Your task to perform on an android device: turn on javascript in the chrome app Image 0: 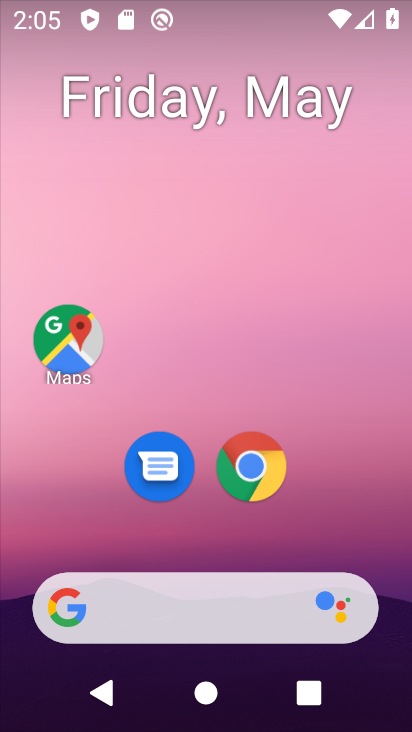
Step 0: click (267, 502)
Your task to perform on an android device: turn on javascript in the chrome app Image 1: 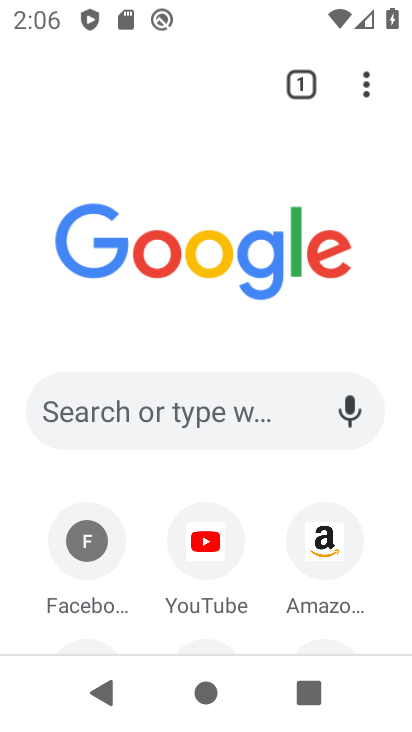
Step 1: click (371, 102)
Your task to perform on an android device: turn on javascript in the chrome app Image 2: 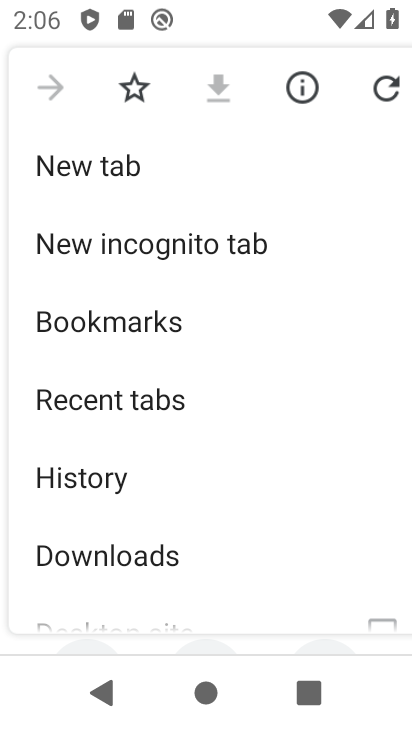
Step 2: drag from (227, 521) to (207, 121)
Your task to perform on an android device: turn on javascript in the chrome app Image 3: 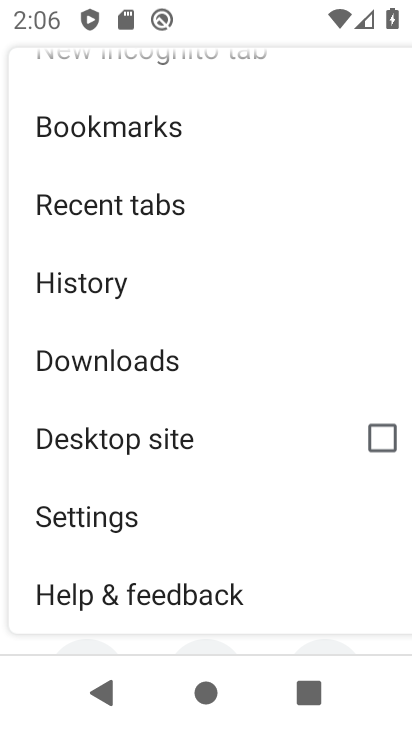
Step 3: click (155, 510)
Your task to perform on an android device: turn on javascript in the chrome app Image 4: 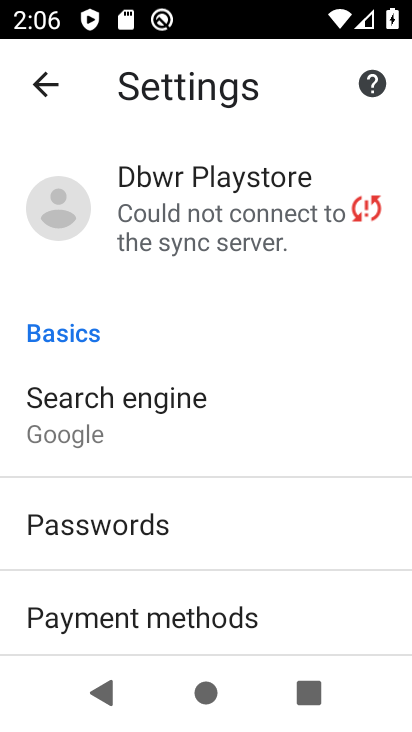
Step 4: drag from (227, 610) to (226, 183)
Your task to perform on an android device: turn on javascript in the chrome app Image 5: 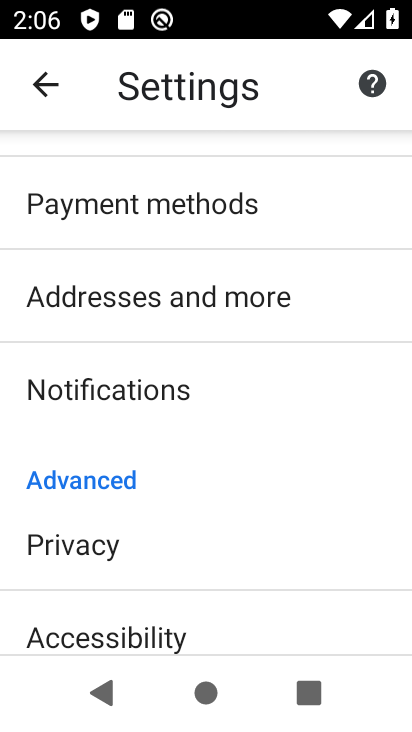
Step 5: drag from (199, 582) to (200, 146)
Your task to perform on an android device: turn on javascript in the chrome app Image 6: 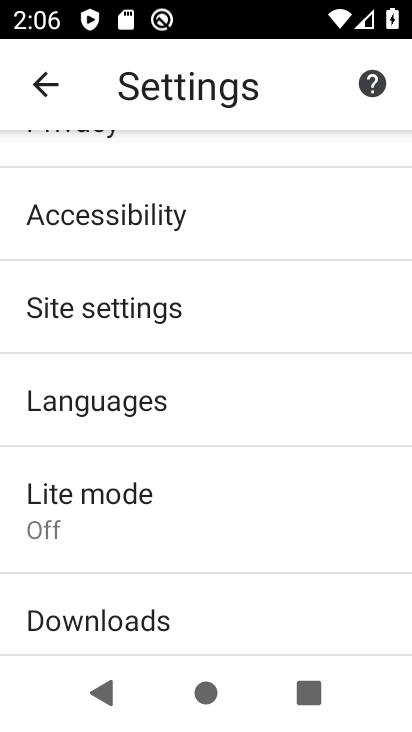
Step 6: drag from (188, 539) to (186, 487)
Your task to perform on an android device: turn on javascript in the chrome app Image 7: 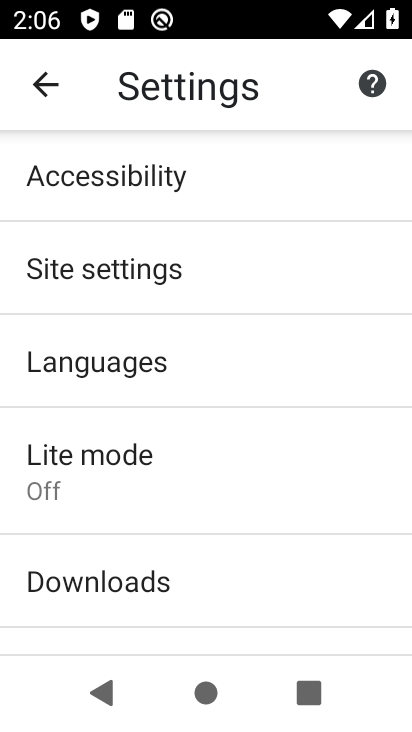
Step 7: click (184, 277)
Your task to perform on an android device: turn on javascript in the chrome app Image 8: 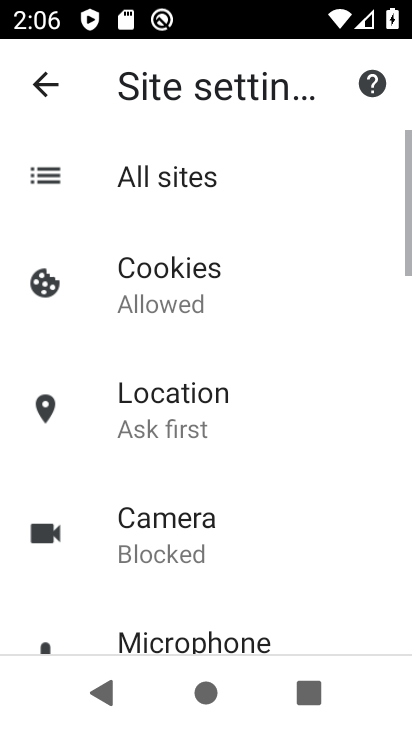
Step 8: drag from (185, 507) to (175, 133)
Your task to perform on an android device: turn on javascript in the chrome app Image 9: 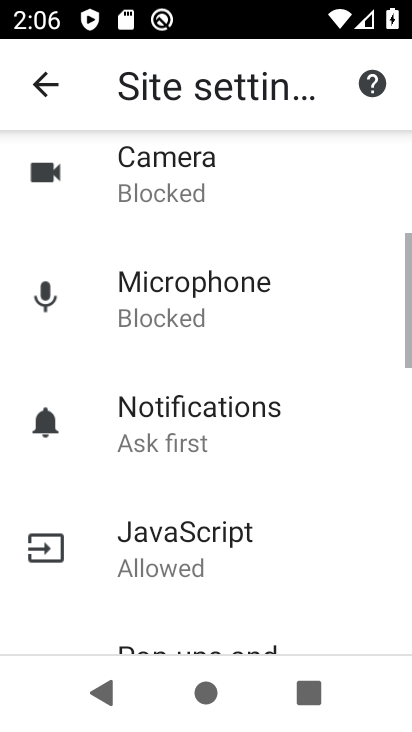
Step 9: click (173, 543)
Your task to perform on an android device: turn on javascript in the chrome app Image 10: 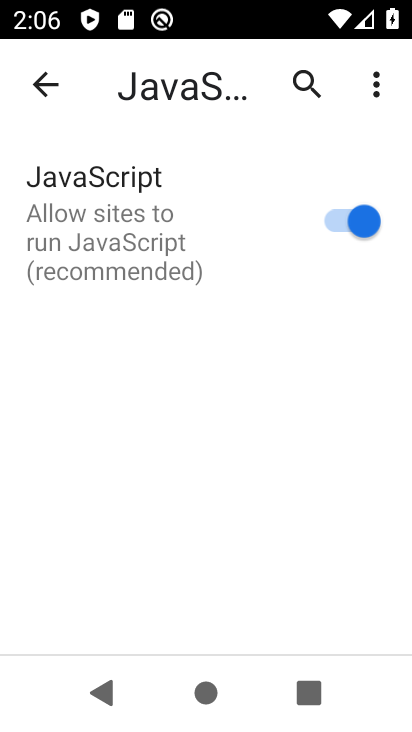
Step 10: click (302, 200)
Your task to perform on an android device: turn on javascript in the chrome app Image 11: 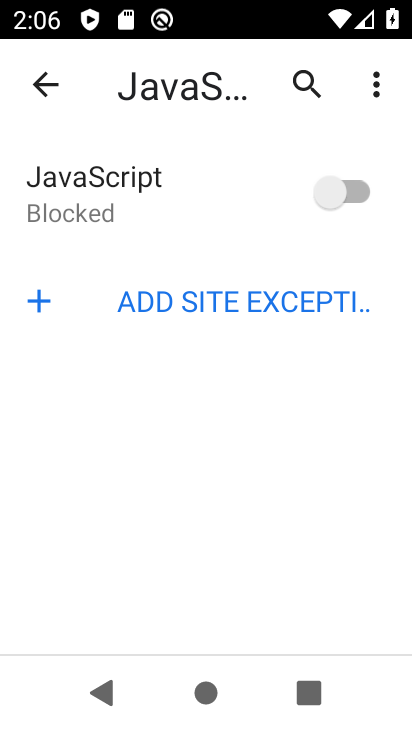
Step 11: task complete